Your task to perform on an android device: toggle location history Image 0: 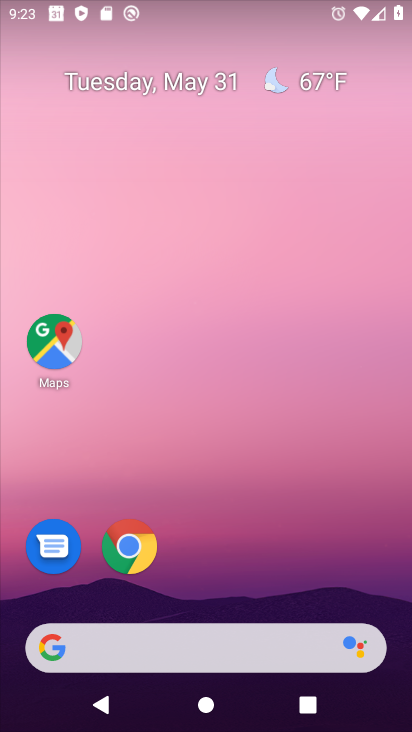
Step 0: drag from (200, 599) to (242, 197)
Your task to perform on an android device: toggle location history Image 1: 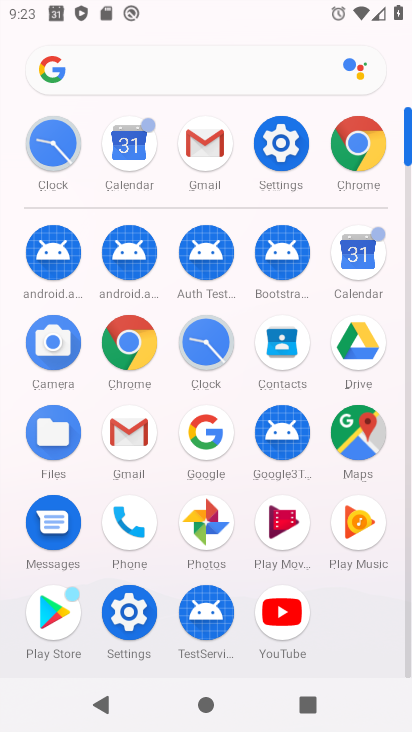
Step 1: click (139, 609)
Your task to perform on an android device: toggle location history Image 2: 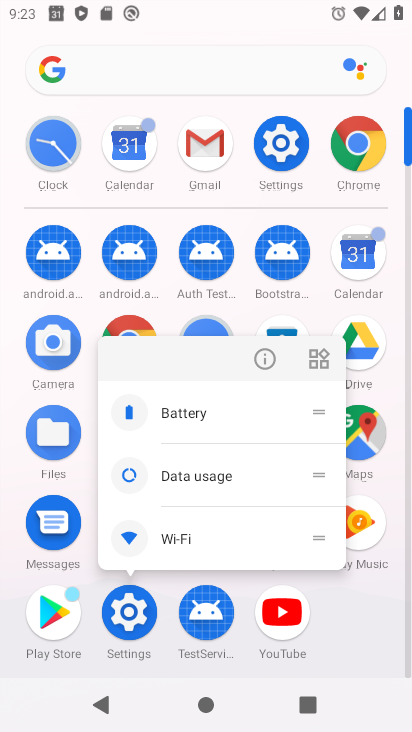
Step 2: click (140, 612)
Your task to perform on an android device: toggle location history Image 3: 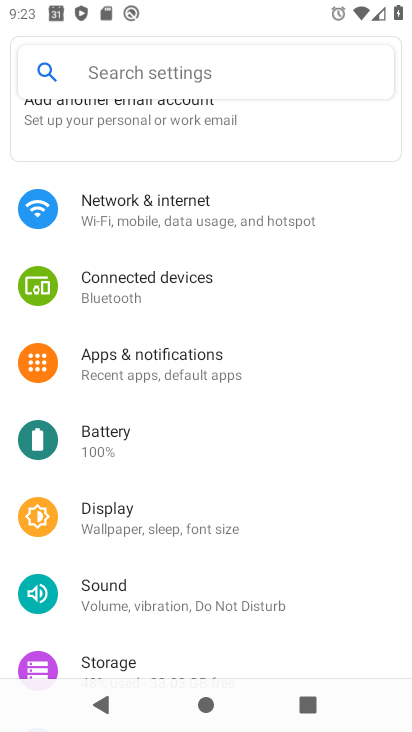
Step 3: drag from (144, 626) to (168, 448)
Your task to perform on an android device: toggle location history Image 4: 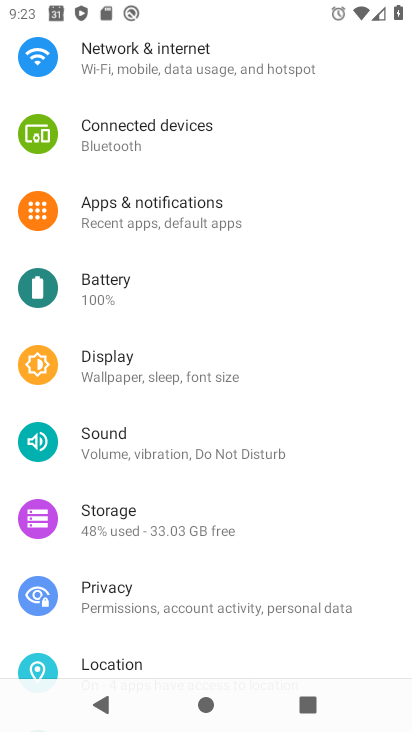
Step 4: click (125, 658)
Your task to perform on an android device: toggle location history Image 5: 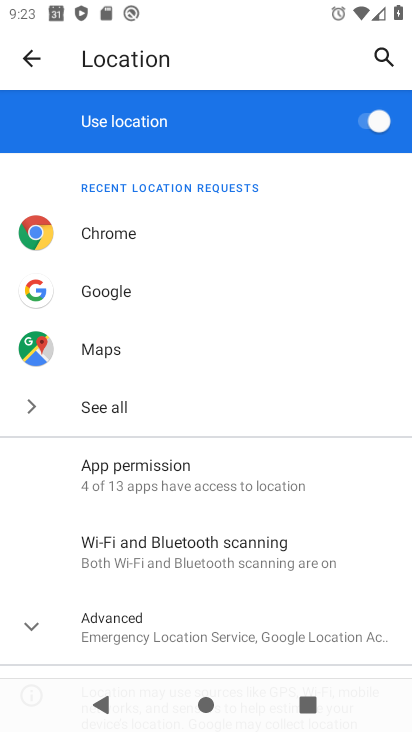
Step 5: click (122, 623)
Your task to perform on an android device: toggle location history Image 6: 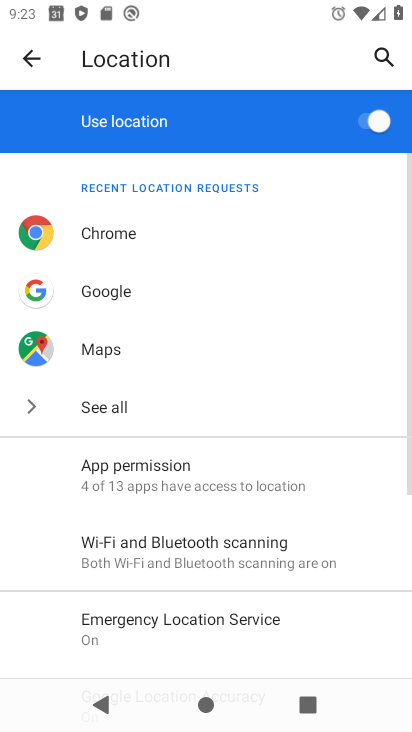
Step 6: drag from (165, 630) to (233, 226)
Your task to perform on an android device: toggle location history Image 7: 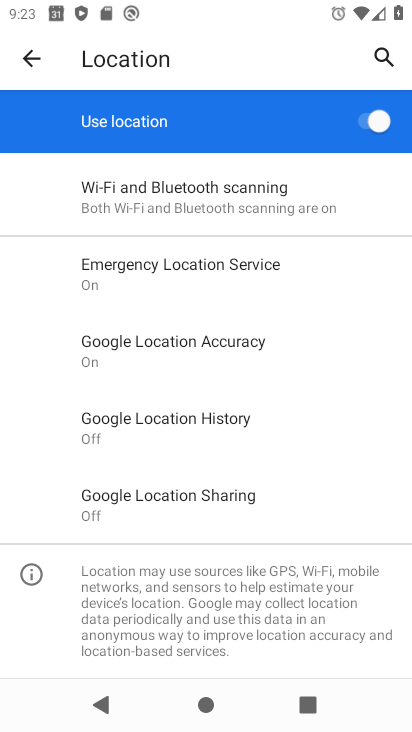
Step 7: click (153, 435)
Your task to perform on an android device: toggle location history Image 8: 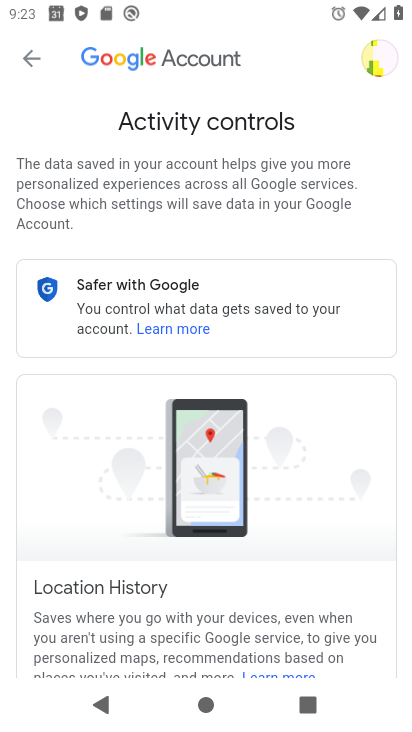
Step 8: drag from (150, 572) to (162, 326)
Your task to perform on an android device: toggle location history Image 9: 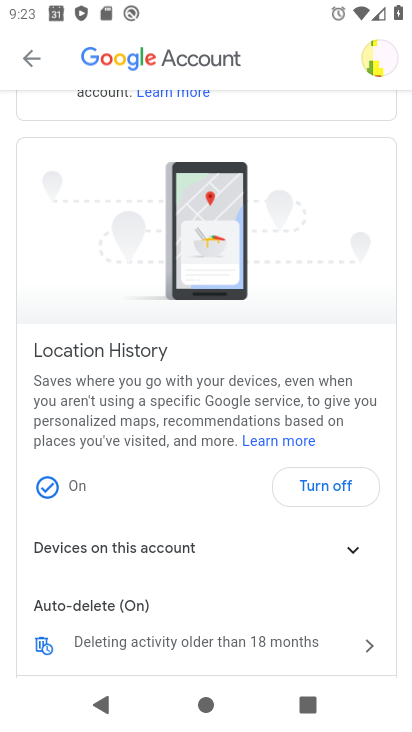
Step 9: click (290, 493)
Your task to perform on an android device: toggle location history Image 10: 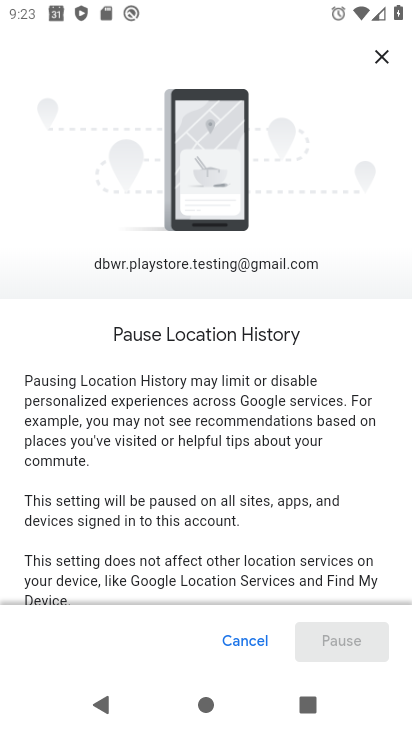
Step 10: drag from (240, 550) to (269, 272)
Your task to perform on an android device: toggle location history Image 11: 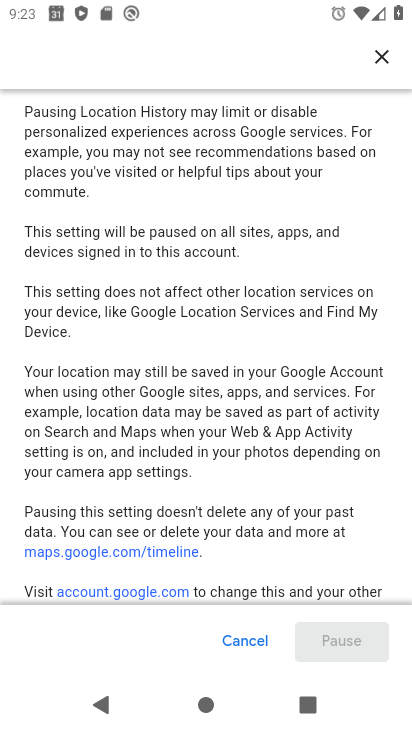
Step 11: drag from (223, 510) to (279, 140)
Your task to perform on an android device: toggle location history Image 12: 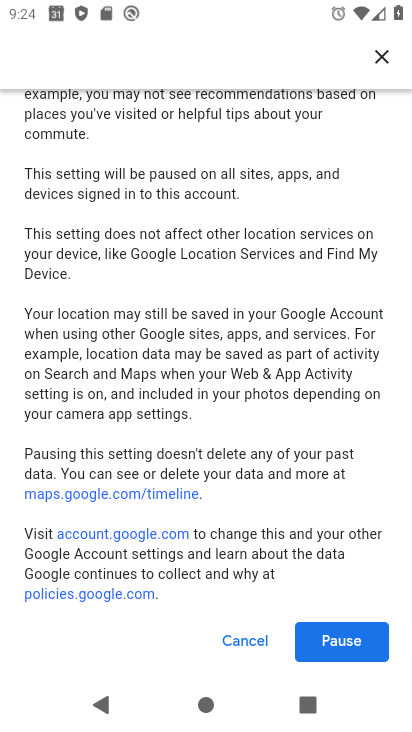
Step 12: click (352, 645)
Your task to perform on an android device: toggle location history Image 13: 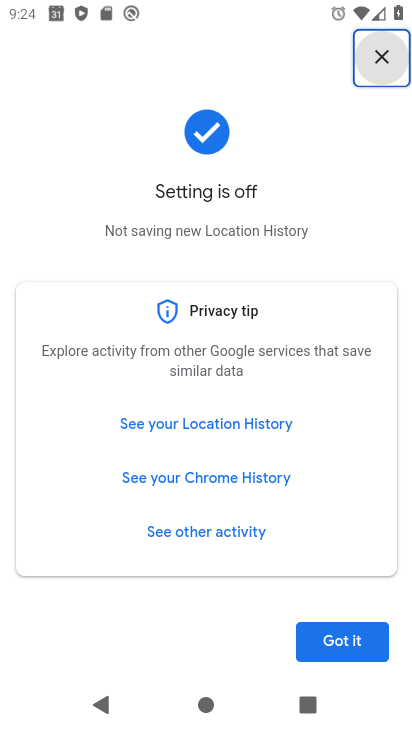
Step 13: click (349, 642)
Your task to perform on an android device: toggle location history Image 14: 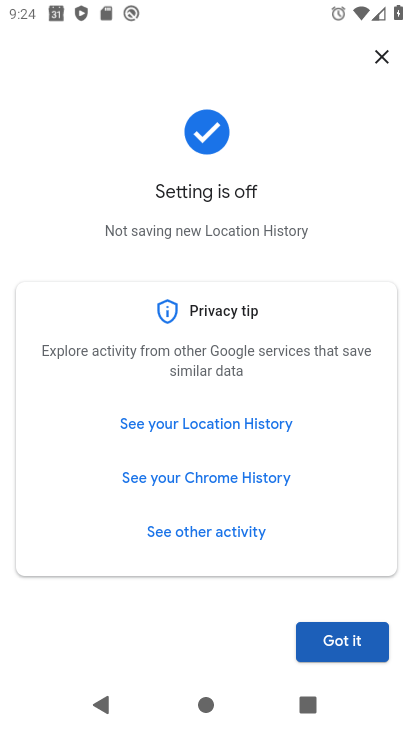
Step 14: click (347, 645)
Your task to perform on an android device: toggle location history Image 15: 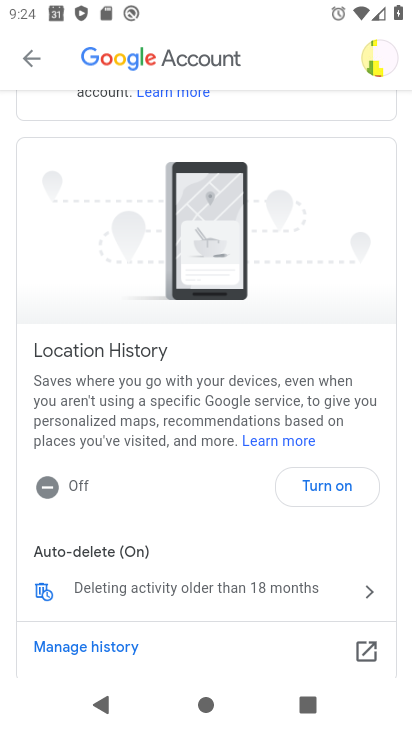
Step 15: task complete